Your task to perform on an android device: change the upload size in google photos Image 0: 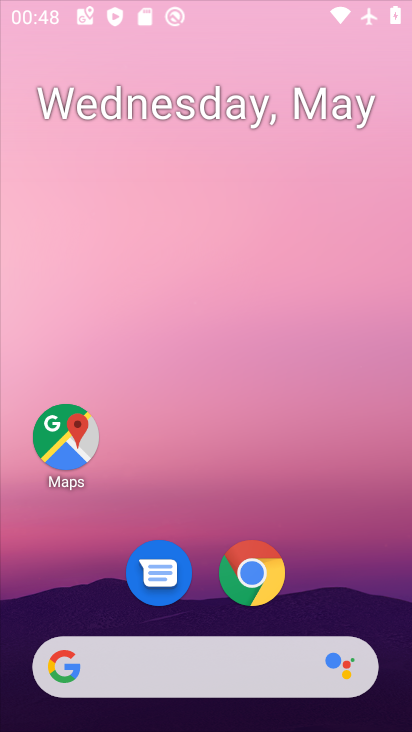
Step 0: drag from (355, 595) to (279, 230)
Your task to perform on an android device: change the upload size in google photos Image 1: 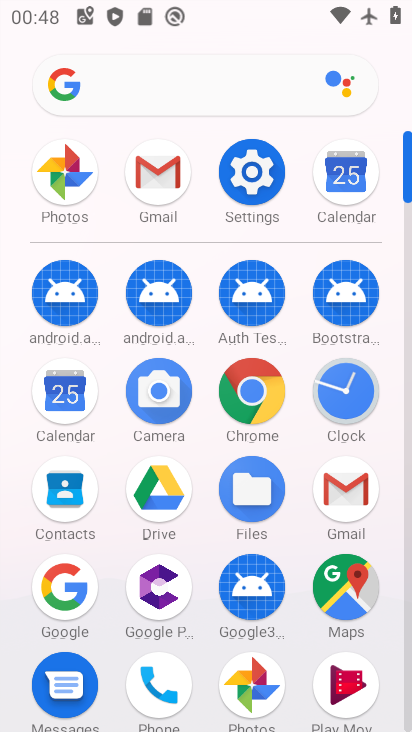
Step 1: click (236, 696)
Your task to perform on an android device: change the upload size in google photos Image 2: 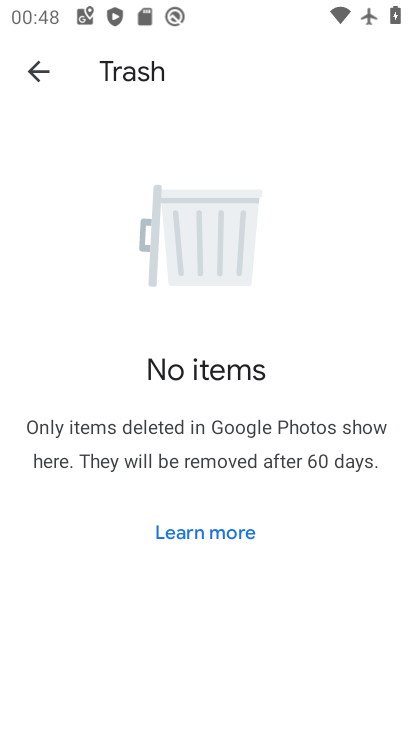
Step 2: click (24, 70)
Your task to perform on an android device: change the upload size in google photos Image 3: 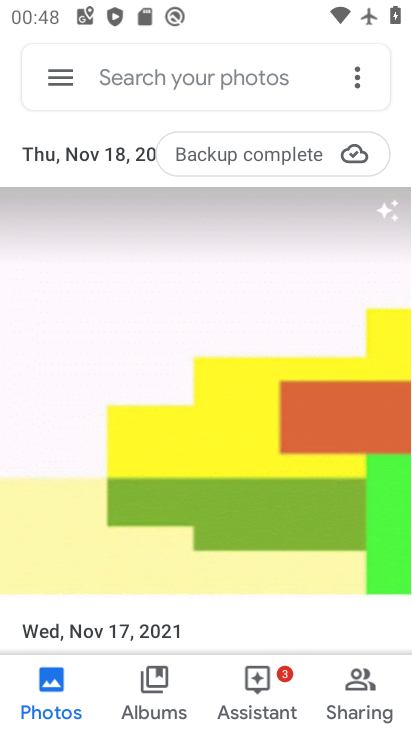
Step 3: click (57, 77)
Your task to perform on an android device: change the upload size in google photos Image 4: 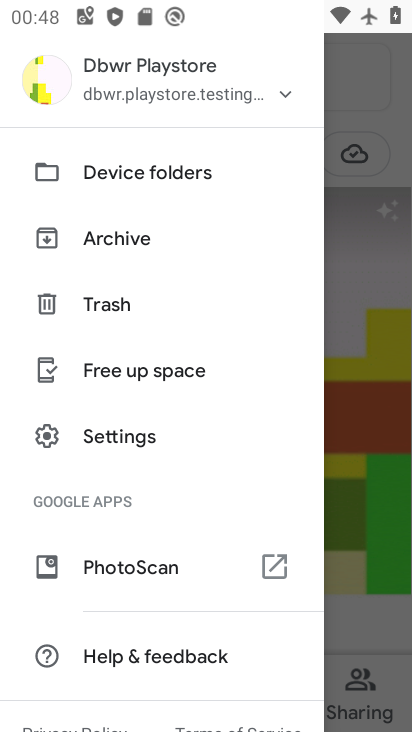
Step 4: click (117, 442)
Your task to perform on an android device: change the upload size in google photos Image 5: 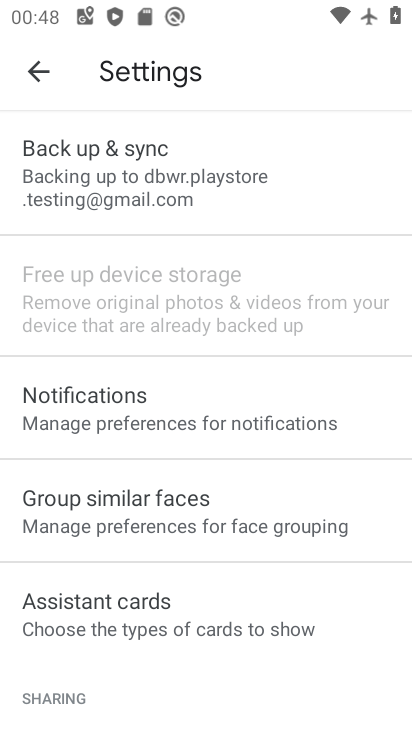
Step 5: click (128, 194)
Your task to perform on an android device: change the upload size in google photos Image 6: 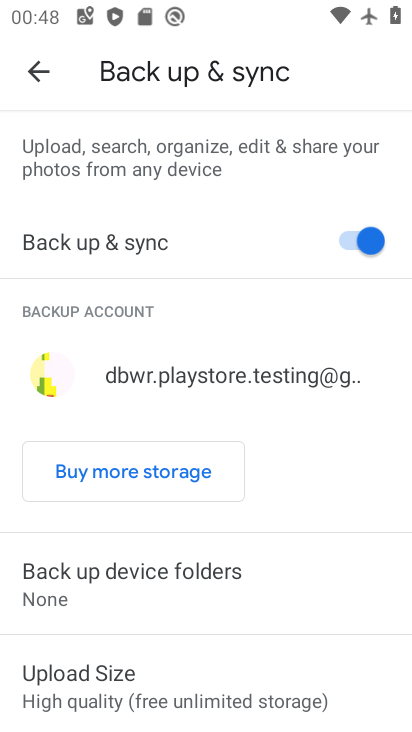
Step 6: drag from (191, 596) to (202, 366)
Your task to perform on an android device: change the upload size in google photos Image 7: 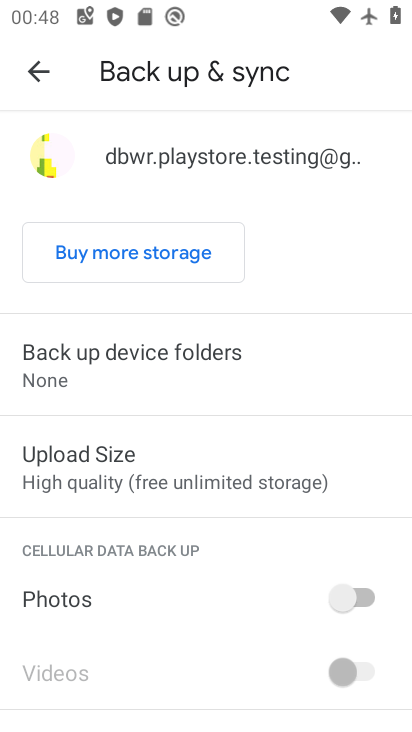
Step 7: click (182, 474)
Your task to perform on an android device: change the upload size in google photos Image 8: 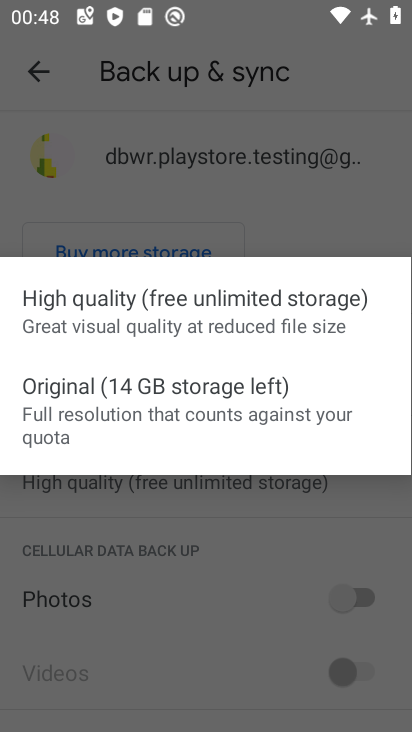
Step 8: click (165, 391)
Your task to perform on an android device: change the upload size in google photos Image 9: 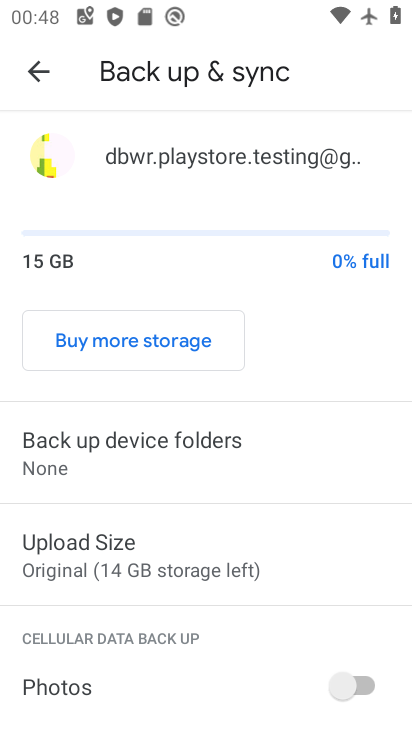
Step 9: task complete